Your task to perform on an android device: allow notifications from all sites in the chrome app Image 0: 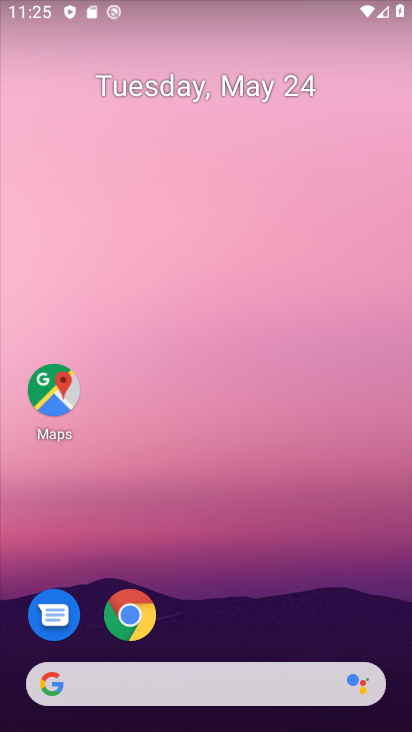
Step 0: drag from (255, 540) to (209, 191)
Your task to perform on an android device: allow notifications from all sites in the chrome app Image 1: 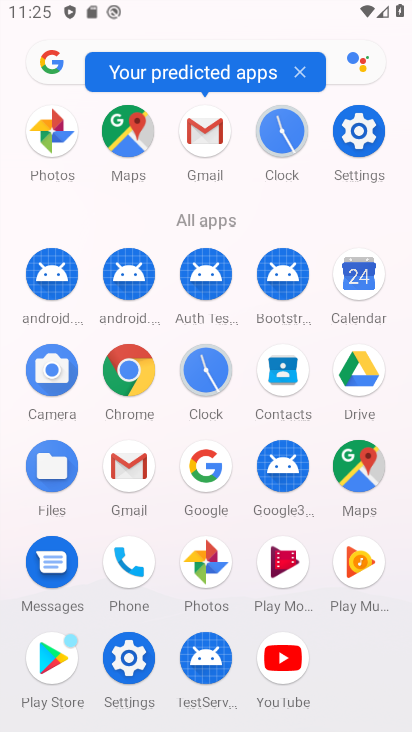
Step 1: click (129, 370)
Your task to perform on an android device: allow notifications from all sites in the chrome app Image 2: 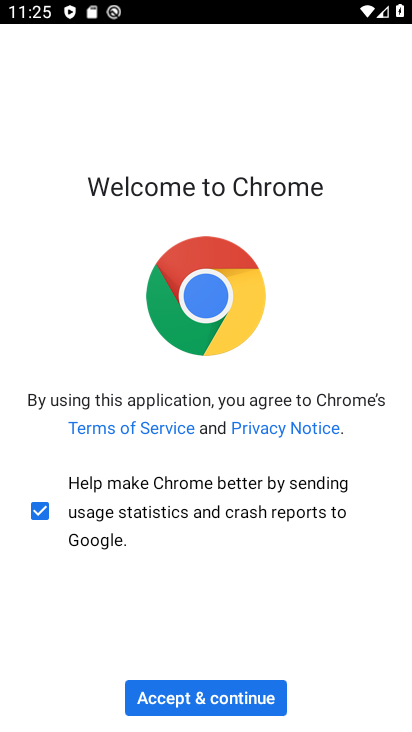
Step 2: click (170, 698)
Your task to perform on an android device: allow notifications from all sites in the chrome app Image 3: 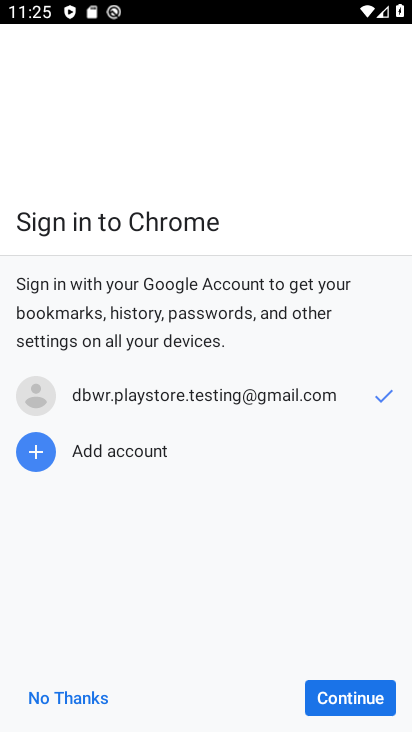
Step 3: click (340, 698)
Your task to perform on an android device: allow notifications from all sites in the chrome app Image 4: 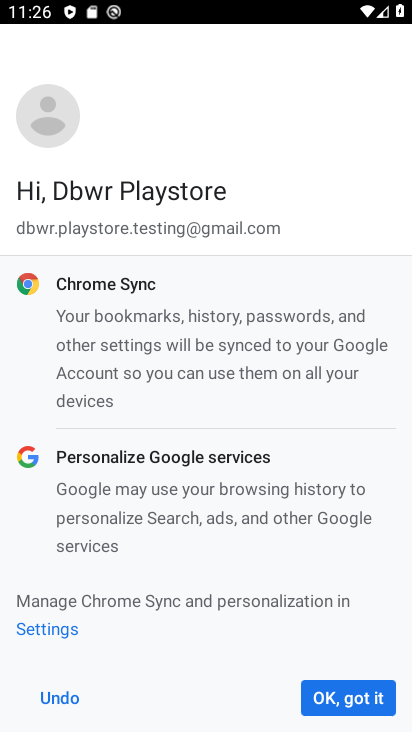
Step 4: click (340, 698)
Your task to perform on an android device: allow notifications from all sites in the chrome app Image 5: 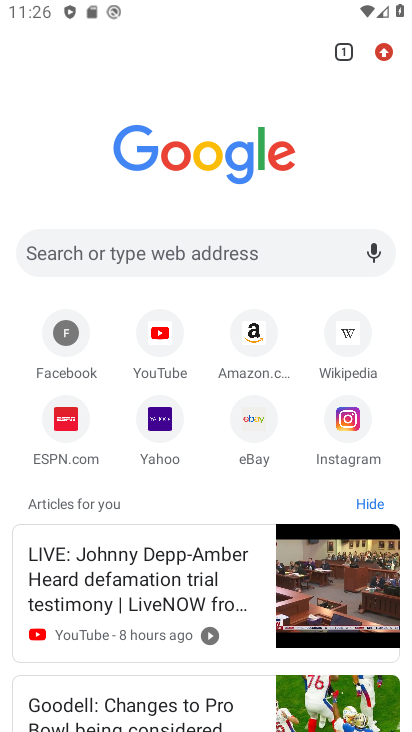
Step 5: click (385, 54)
Your task to perform on an android device: allow notifications from all sites in the chrome app Image 6: 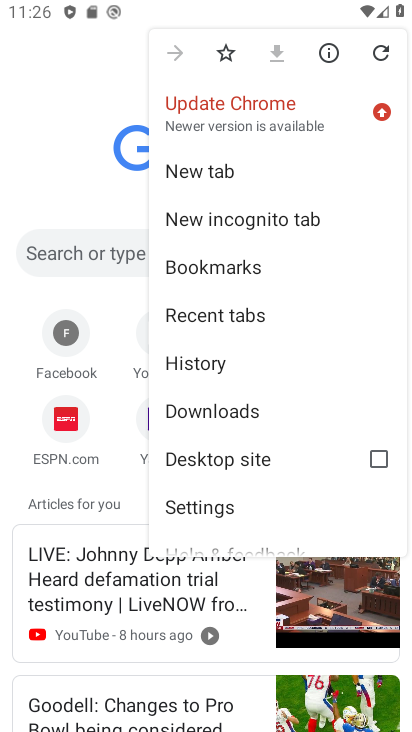
Step 6: drag from (214, 439) to (250, 325)
Your task to perform on an android device: allow notifications from all sites in the chrome app Image 7: 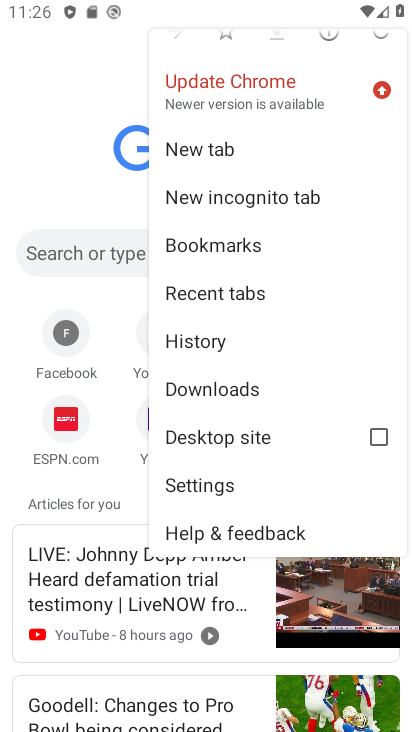
Step 7: click (220, 481)
Your task to perform on an android device: allow notifications from all sites in the chrome app Image 8: 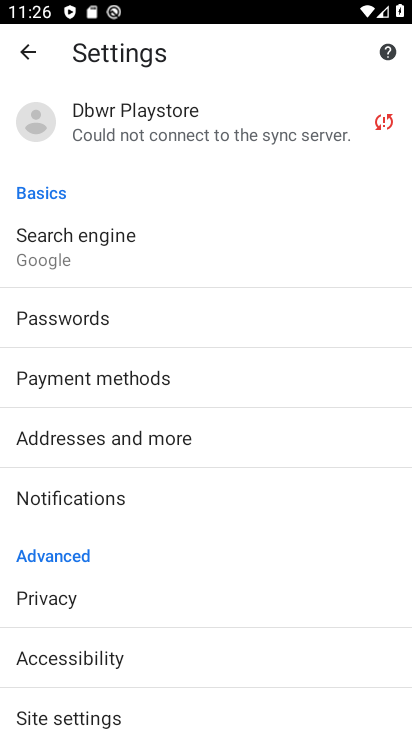
Step 8: drag from (132, 512) to (202, 410)
Your task to perform on an android device: allow notifications from all sites in the chrome app Image 9: 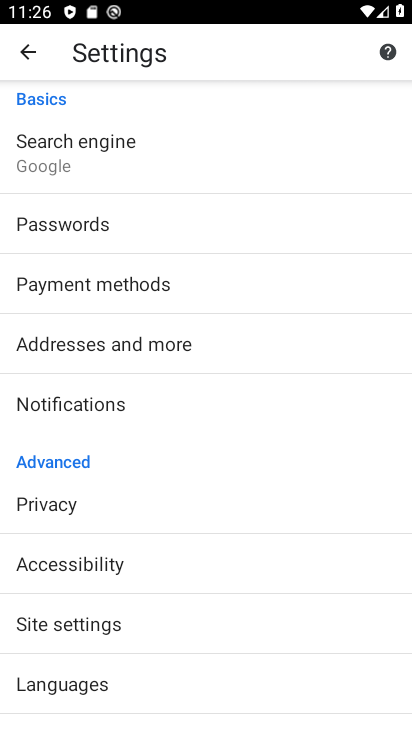
Step 9: drag from (121, 491) to (167, 407)
Your task to perform on an android device: allow notifications from all sites in the chrome app Image 10: 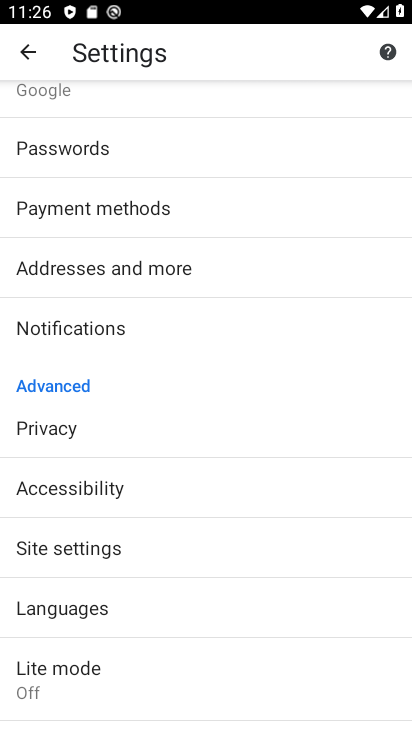
Step 10: click (95, 548)
Your task to perform on an android device: allow notifications from all sites in the chrome app Image 11: 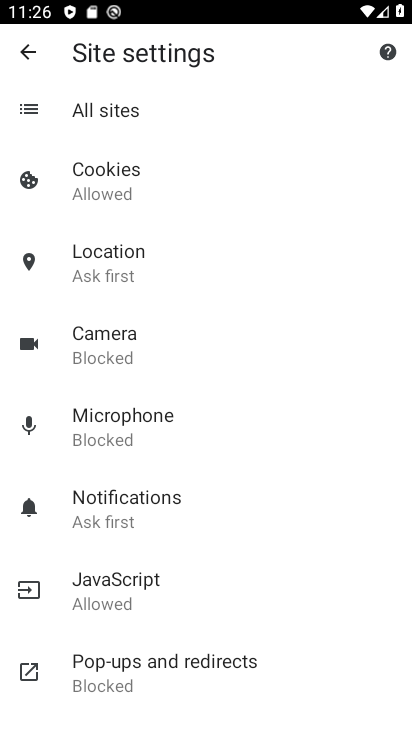
Step 11: click (116, 498)
Your task to perform on an android device: allow notifications from all sites in the chrome app Image 12: 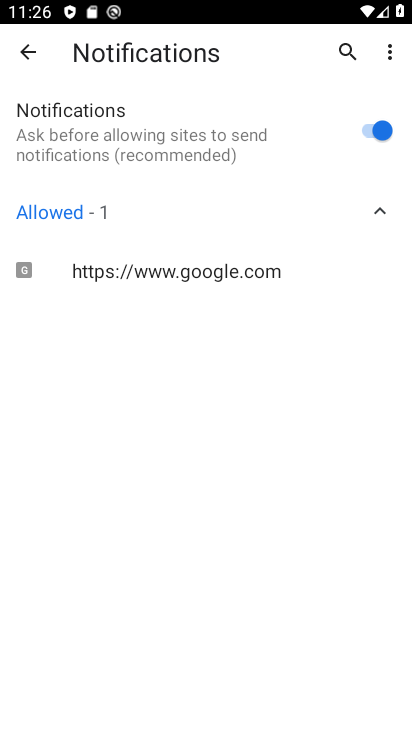
Step 12: task complete